Your task to perform on an android device: Open Google Maps and go to "Timeline" Image 0: 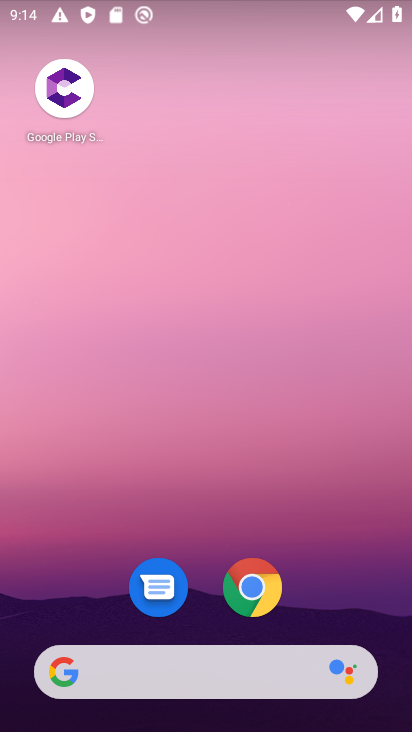
Step 0: drag from (382, 632) to (222, 4)
Your task to perform on an android device: Open Google Maps and go to "Timeline" Image 1: 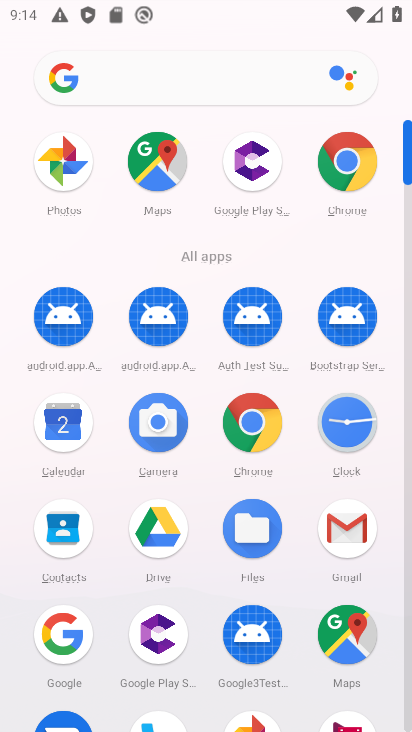
Step 1: click (168, 167)
Your task to perform on an android device: Open Google Maps and go to "Timeline" Image 2: 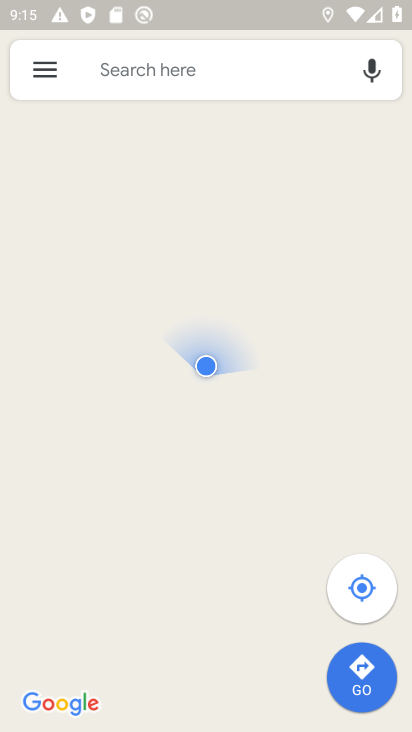
Step 2: click (39, 76)
Your task to perform on an android device: Open Google Maps and go to "Timeline" Image 3: 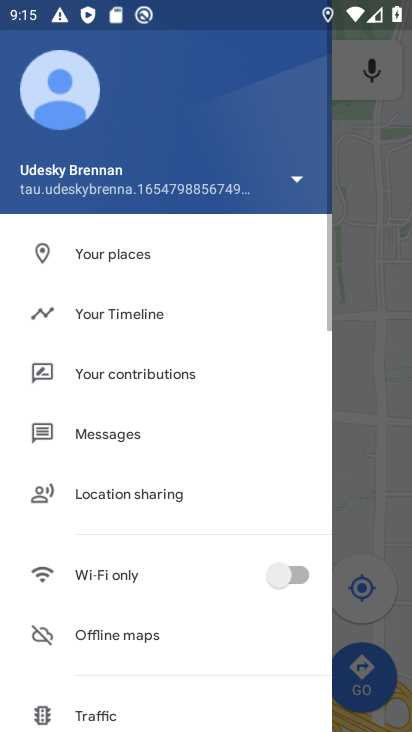
Step 3: click (119, 318)
Your task to perform on an android device: Open Google Maps and go to "Timeline" Image 4: 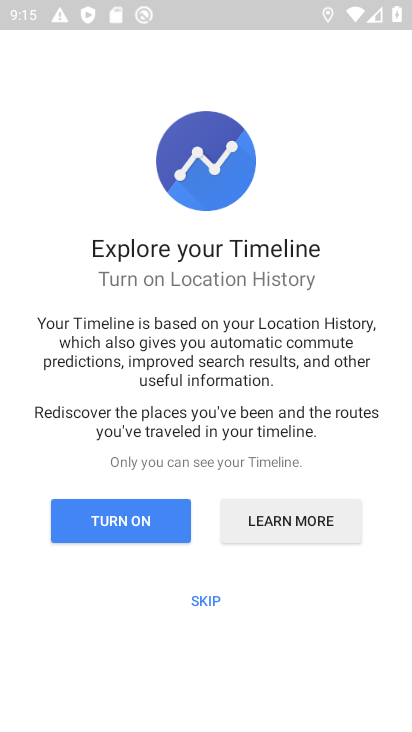
Step 4: click (136, 538)
Your task to perform on an android device: Open Google Maps and go to "Timeline" Image 5: 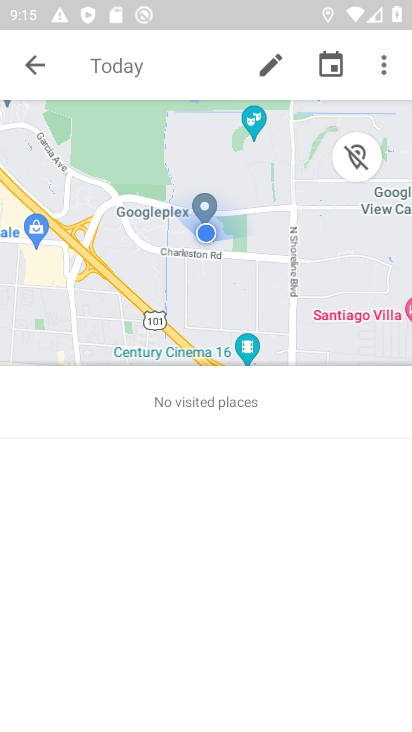
Step 5: task complete